Your task to perform on an android device: Turn on the flashlight Image 0: 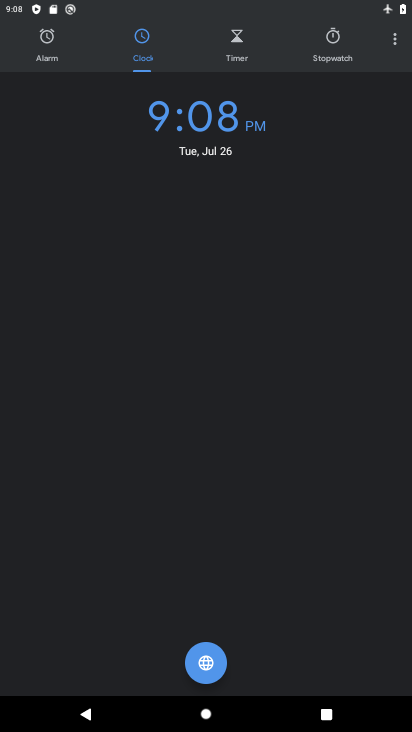
Step 0: press home button
Your task to perform on an android device: Turn on the flashlight Image 1: 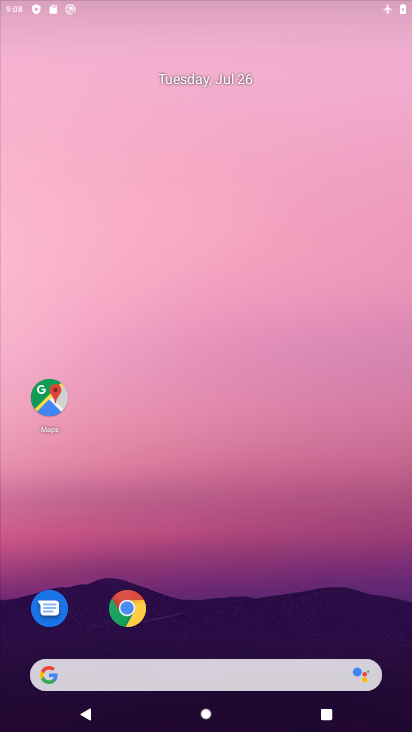
Step 1: drag from (186, 609) to (249, 235)
Your task to perform on an android device: Turn on the flashlight Image 2: 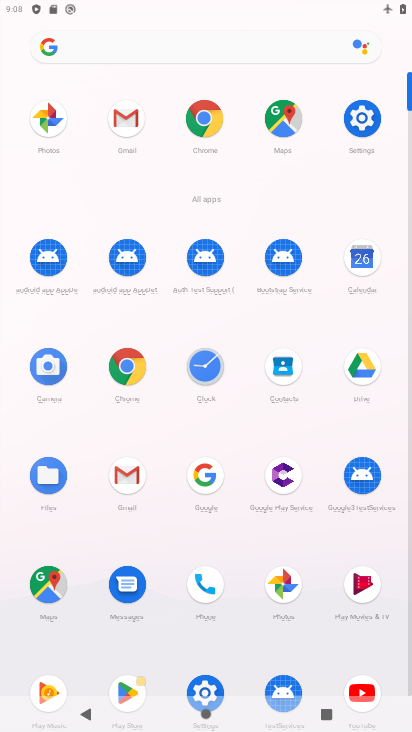
Step 2: click (365, 117)
Your task to perform on an android device: Turn on the flashlight Image 3: 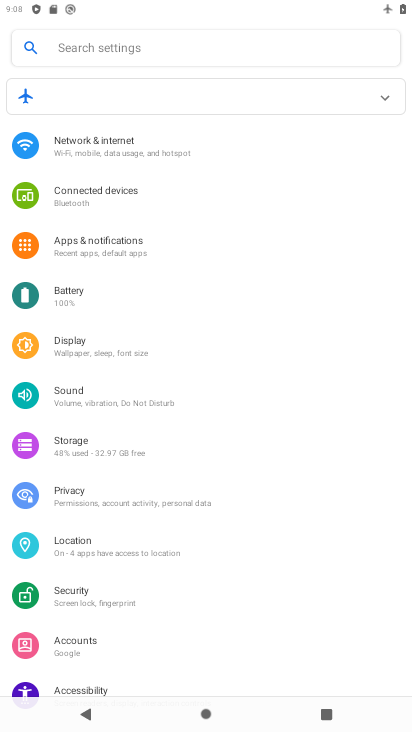
Step 3: task complete